Your task to perform on an android device: Go to accessibility settings Image 0: 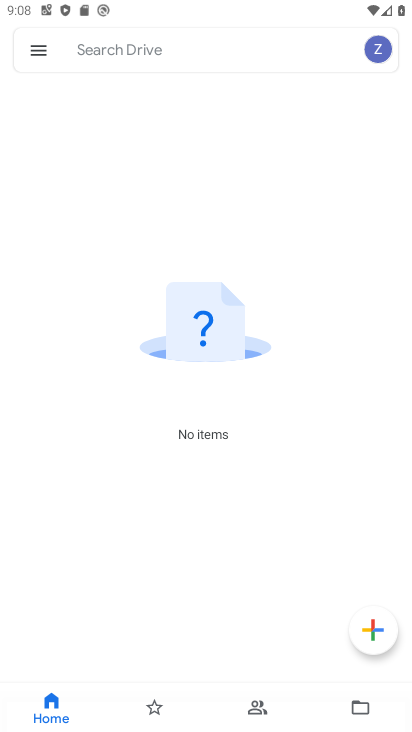
Step 0: press home button
Your task to perform on an android device: Go to accessibility settings Image 1: 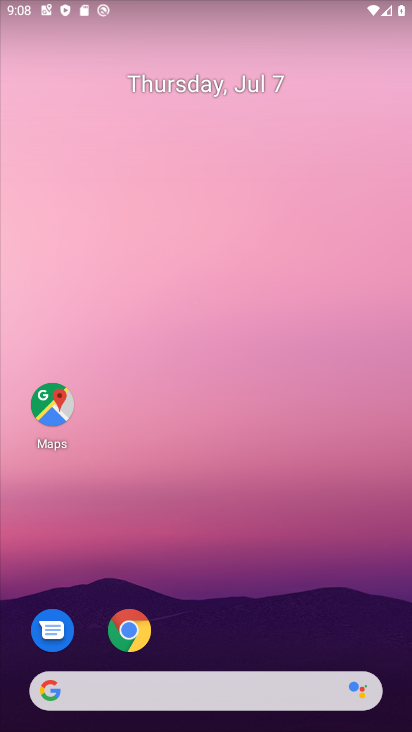
Step 1: drag from (311, 605) to (387, 79)
Your task to perform on an android device: Go to accessibility settings Image 2: 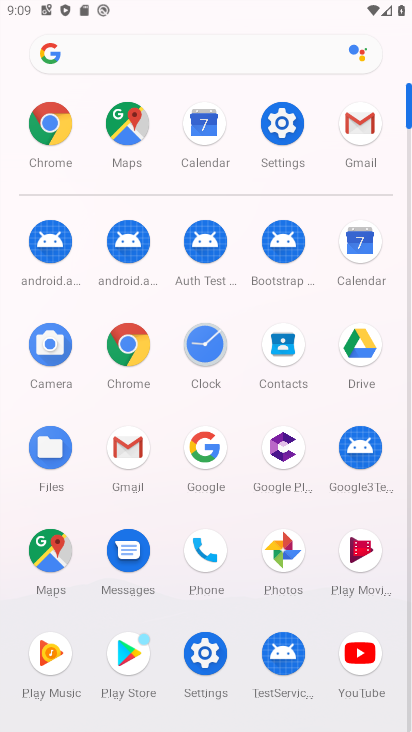
Step 2: click (195, 642)
Your task to perform on an android device: Go to accessibility settings Image 3: 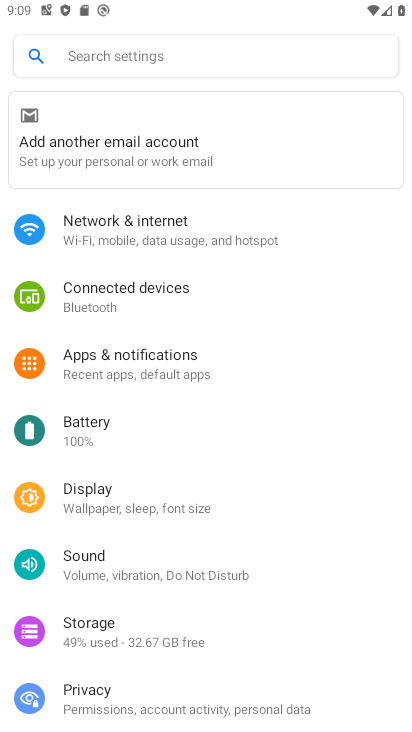
Step 3: drag from (311, 654) to (358, 288)
Your task to perform on an android device: Go to accessibility settings Image 4: 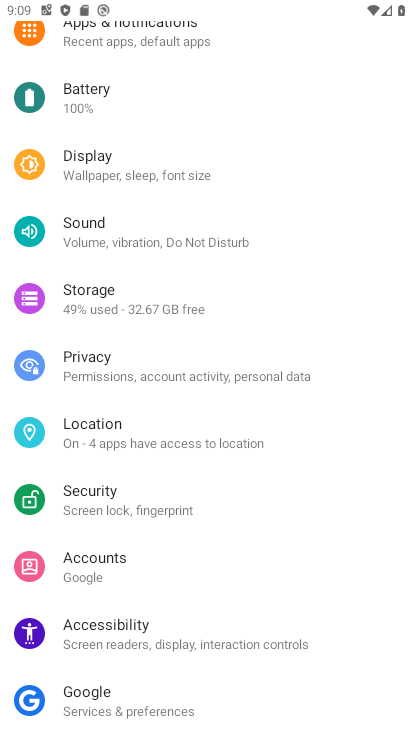
Step 4: click (108, 628)
Your task to perform on an android device: Go to accessibility settings Image 5: 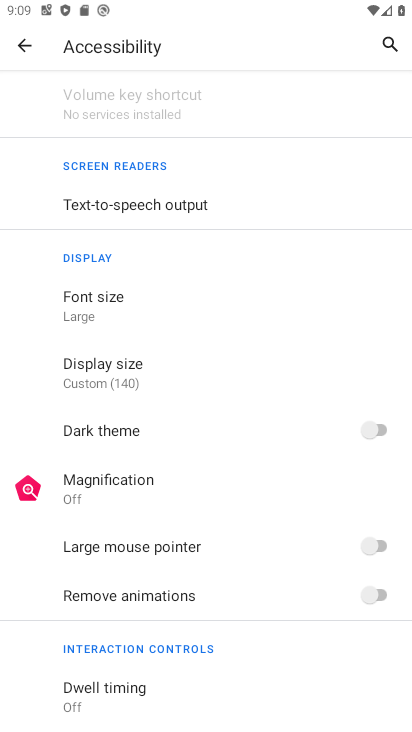
Step 5: task complete